Your task to perform on an android device: Is it going to rain today? Image 0: 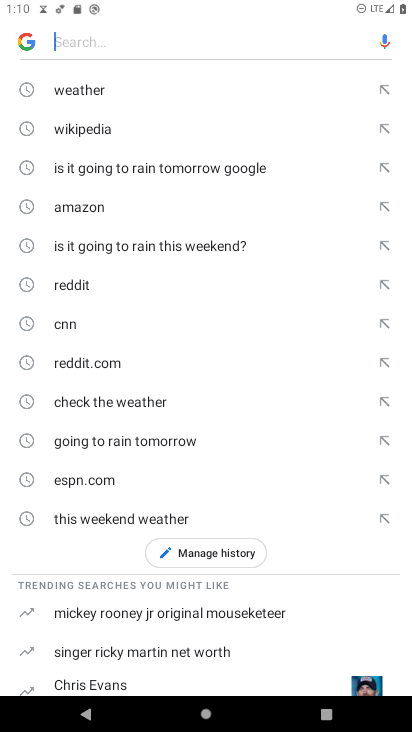
Step 0: type "going to rain today"
Your task to perform on an android device: Is it going to rain today? Image 1: 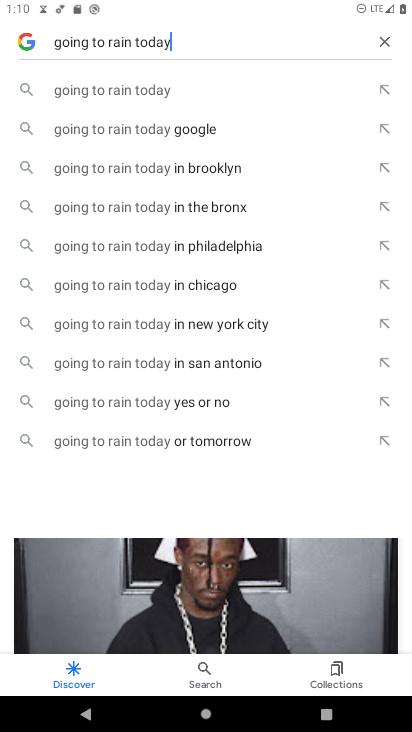
Step 1: click (130, 86)
Your task to perform on an android device: Is it going to rain today? Image 2: 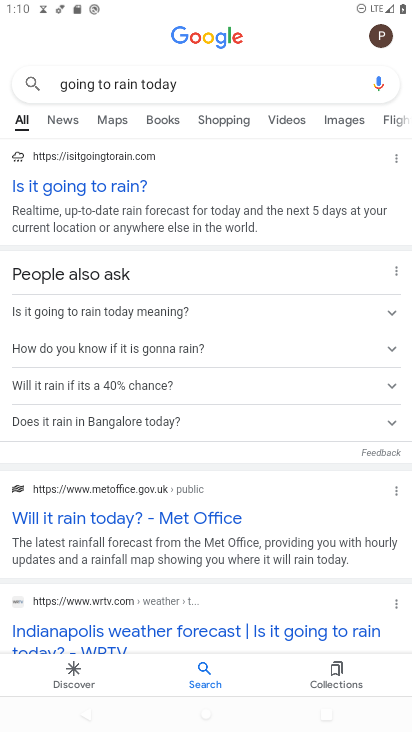
Step 2: task complete